Your task to perform on an android device: What's the weather today? Image 0: 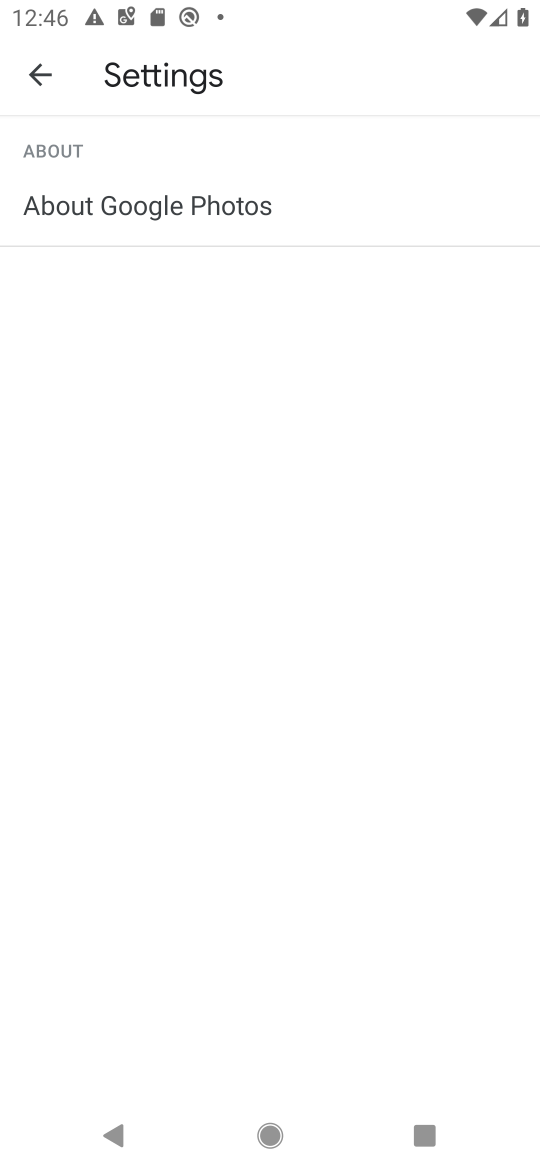
Step 0: press home button
Your task to perform on an android device: What's the weather today? Image 1: 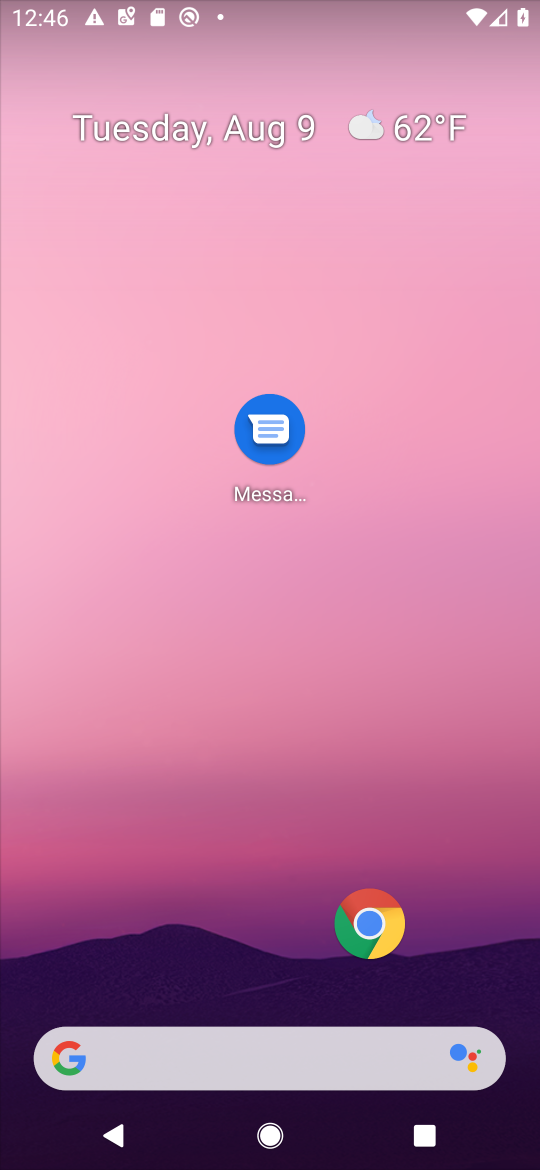
Step 1: click (122, 1055)
Your task to perform on an android device: What's the weather today? Image 2: 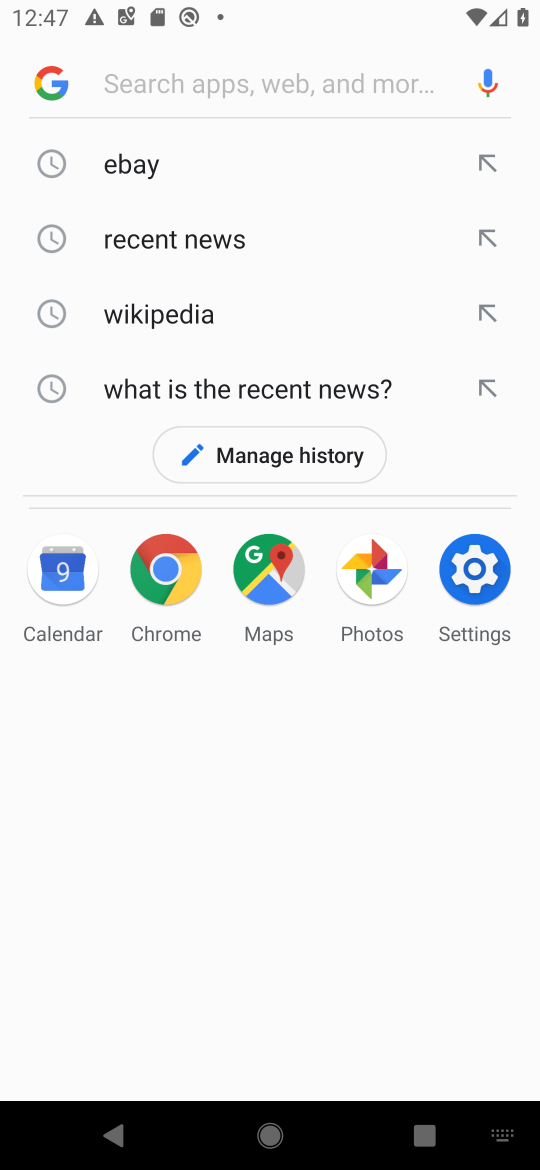
Step 2: type "What's the weather today?"
Your task to perform on an android device: What's the weather today? Image 3: 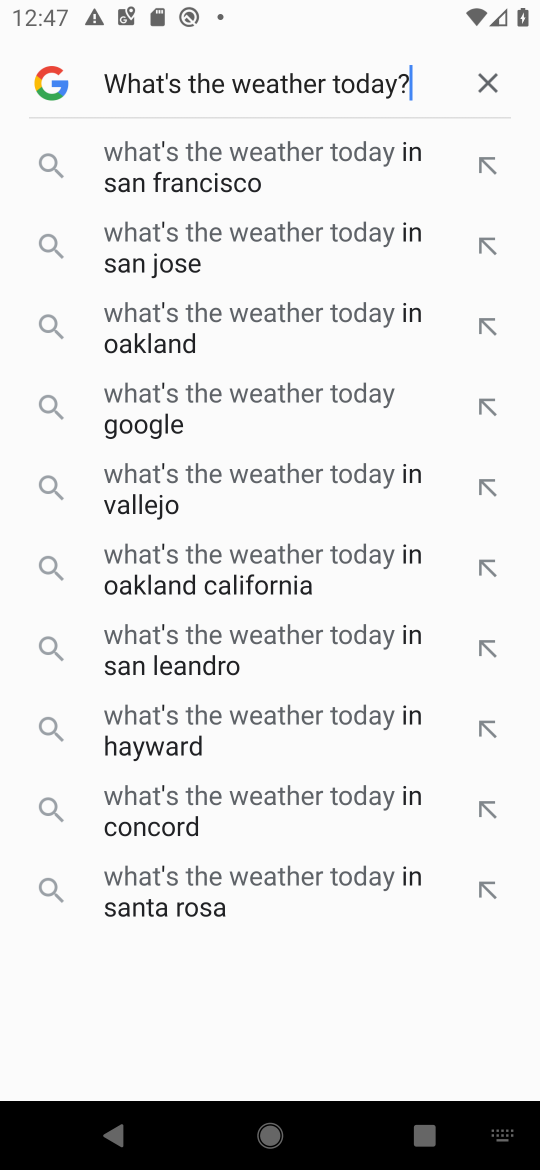
Step 3: type ""
Your task to perform on an android device: What's the weather today? Image 4: 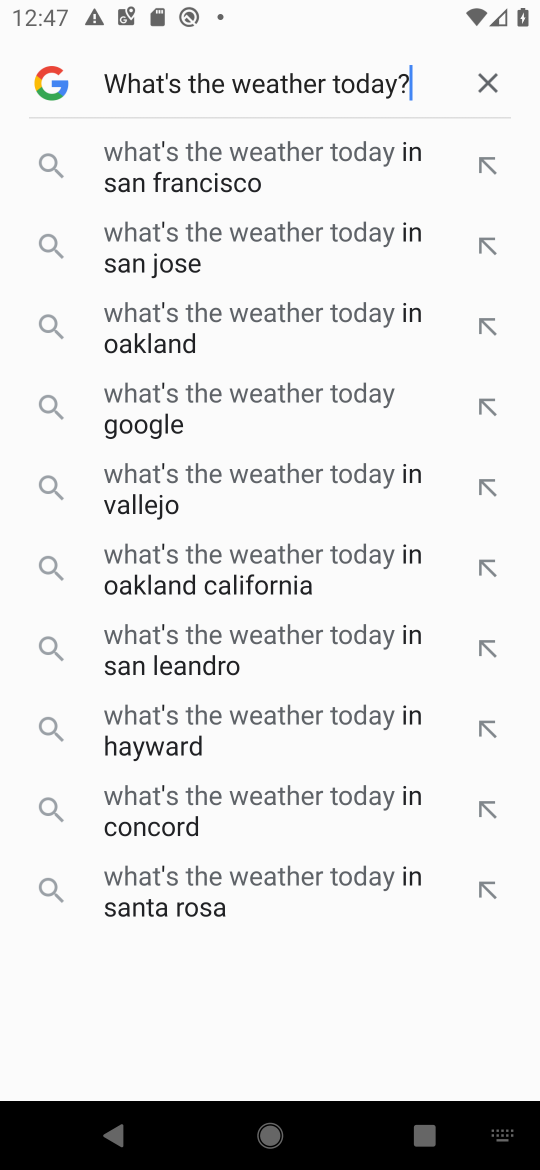
Step 4: type ""
Your task to perform on an android device: What's the weather today? Image 5: 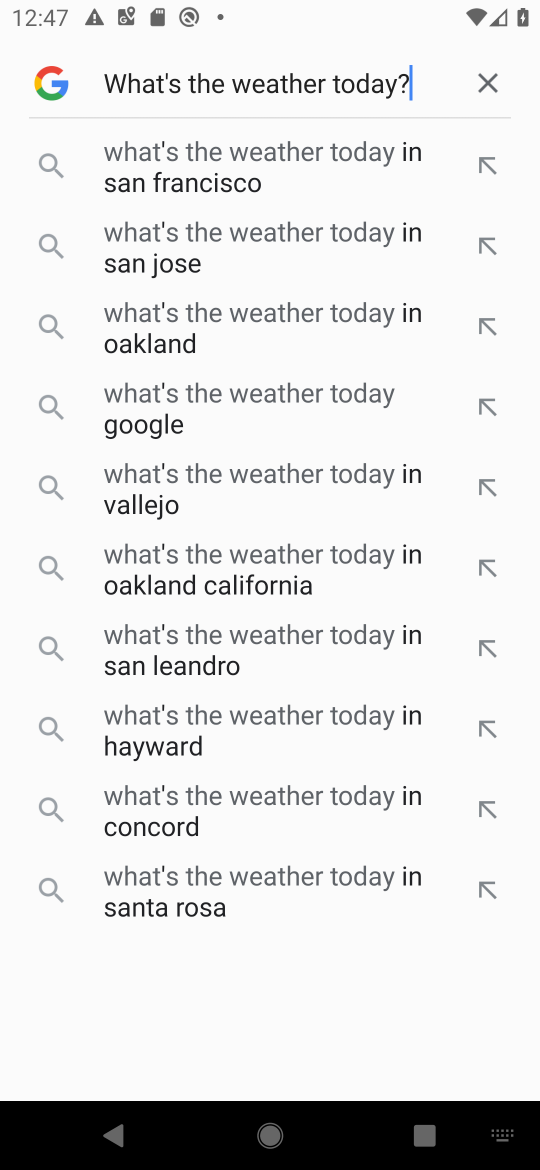
Step 5: task complete